Your task to perform on an android device: Open Google Chrome and open the bookmarks view Image 0: 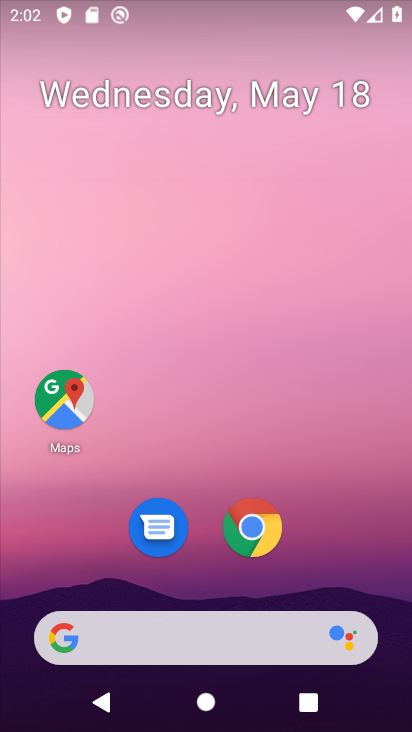
Step 0: click (260, 524)
Your task to perform on an android device: Open Google Chrome and open the bookmarks view Image 1: 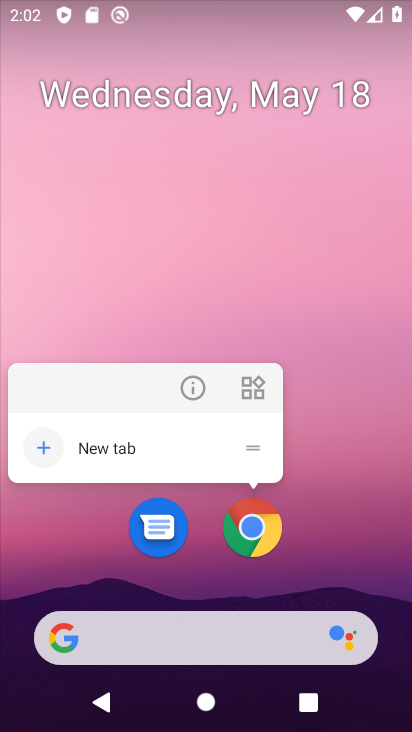
Step 1: click (256, 552)
Your task to perform on an android device: Open Google Chrome and open the bookmarks view Image 2: 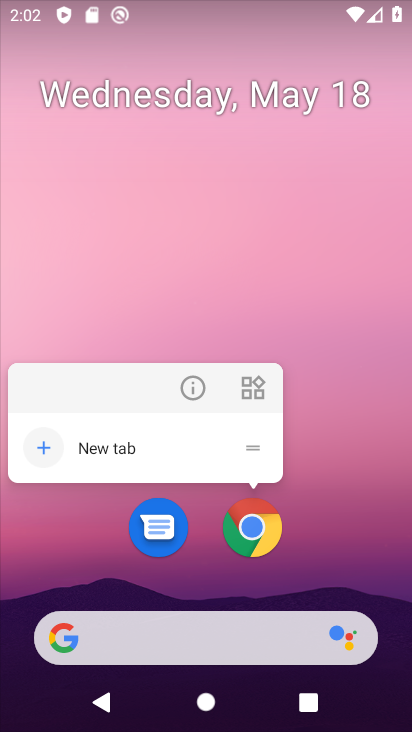
Step 2: click (259, 545)
Your task to perform on an android device: Open Google Chrome and open the bookmarks view Image 3: 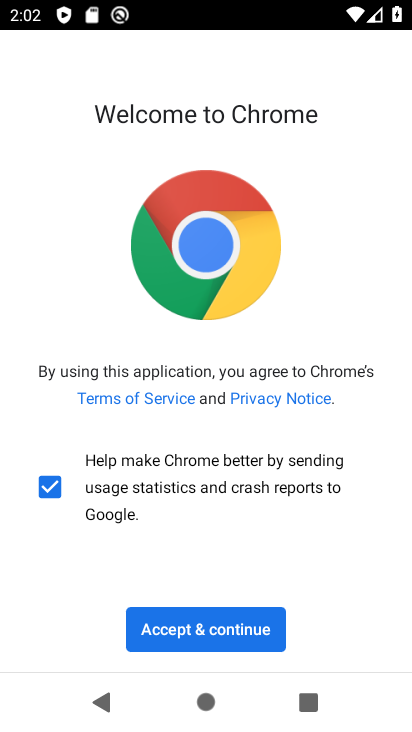
Step 3: click (244, 631)
Your task to perform on an android device: Open Google Chrome and open the bookmarks view Image 4: 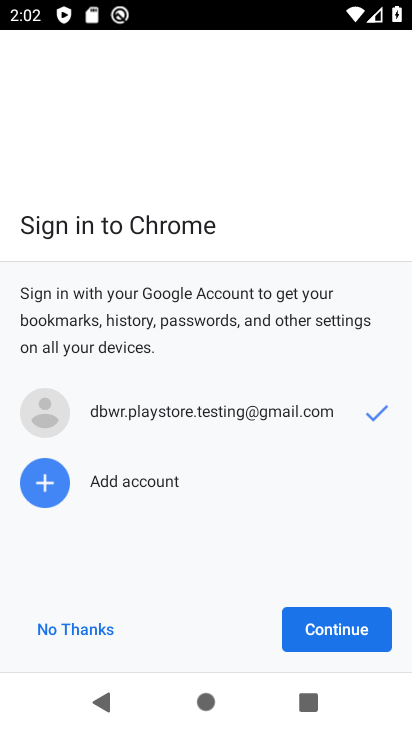
Step 4: click (305, 630)
Your task to perform on an android device: Open Google Chrome and open the bookmarks view Image 5: 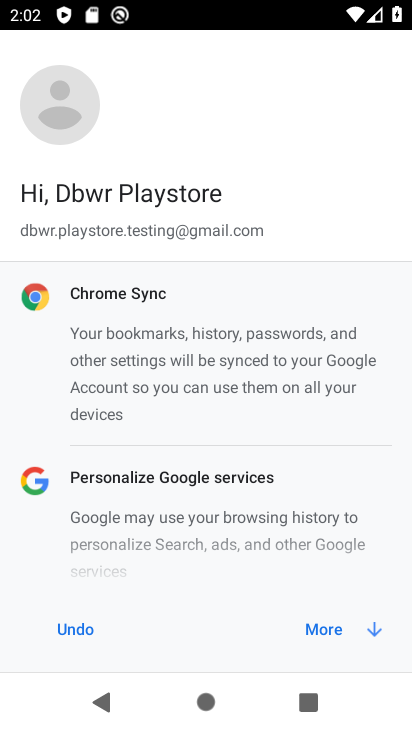
Step 5: click (336, 634)
Your task to perform on an android device: Open Google Chrome and open the bookmarks view Image 6: 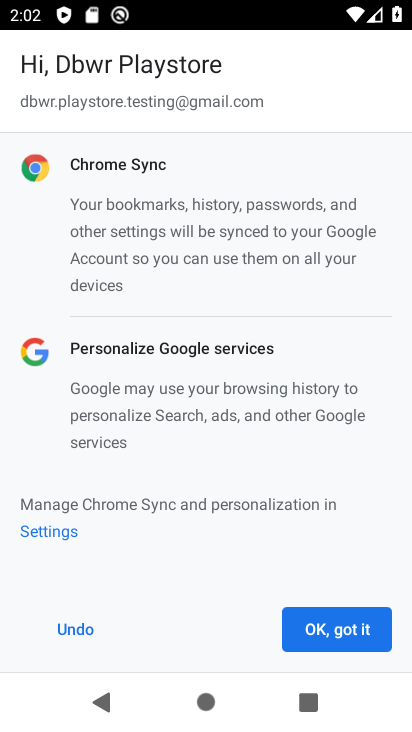
Step 6: click (336, 634)
Your task to perform on an android device: Open Google Chrome and open the bookmarks view Image 7: 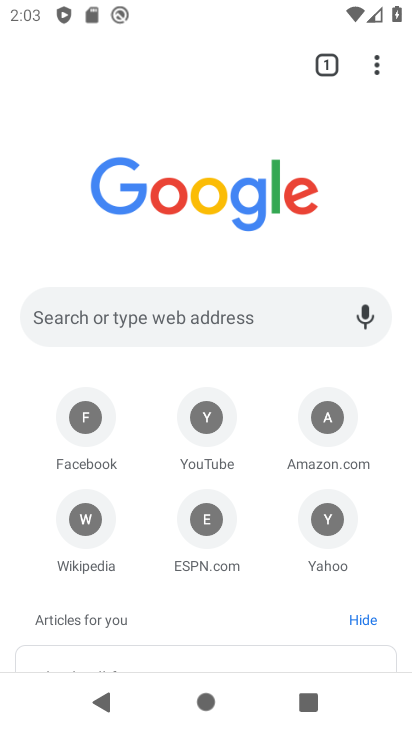
Step 7: task complete